Your task to perform on an android device: change notifications settings Image 0: 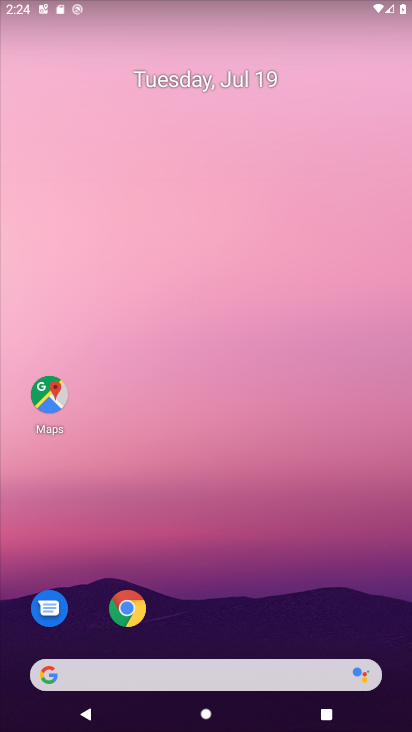
Step 0: drag from (268, 605) to (191, 0)
Your task to perform on an android device: change notifications settings Image 1: 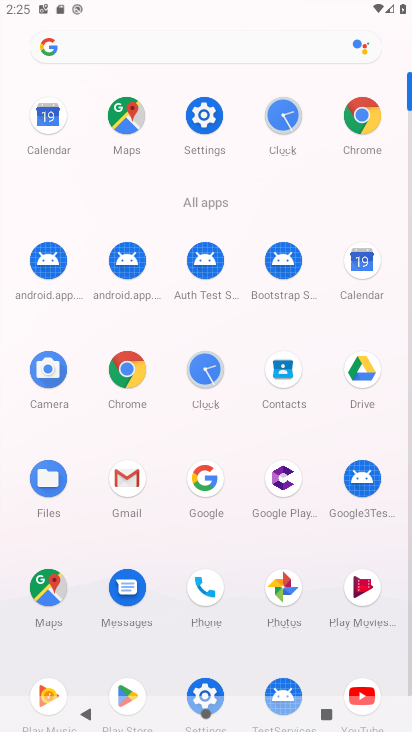
Step 1: click (213, 685)
Your task to perform on an android device: change notifications settings Image 2: 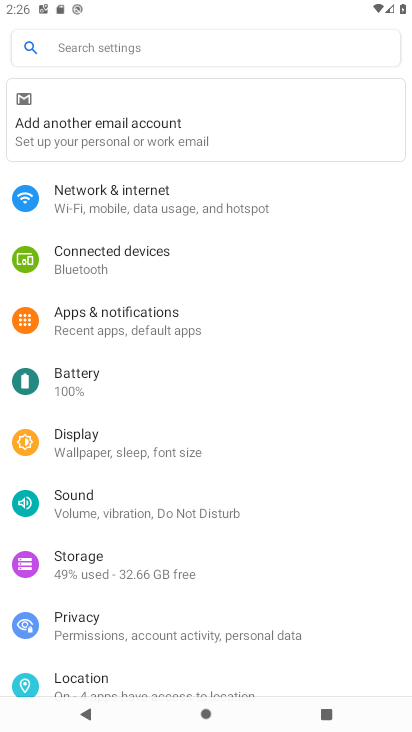
Step 2: click (164, 315)
Your task to perform on an android device: change notifications settings Image 3: 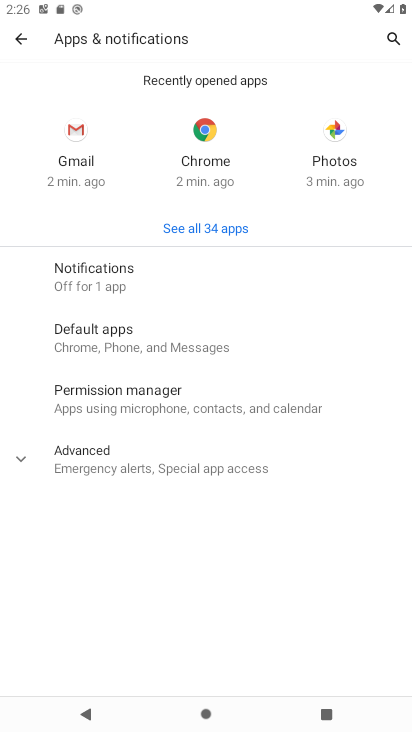
Step 3: click (112, 265)
Your task to perform on an android device: change notifications settings Image 4: 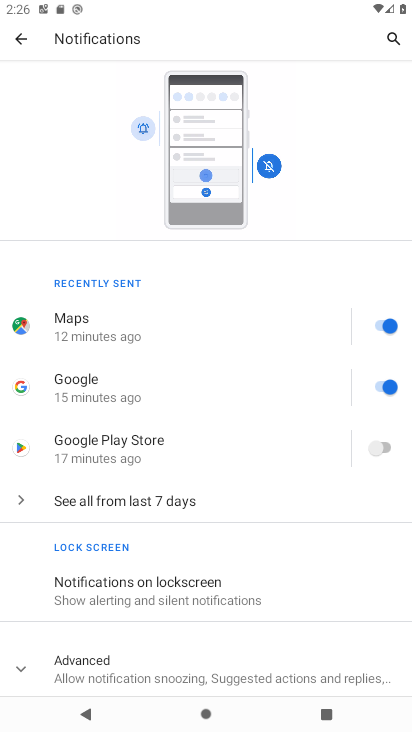
Step 4: drag from (266, 595) to (210, 393)
Your task to perform on an android device: change notifications settings Image 5: 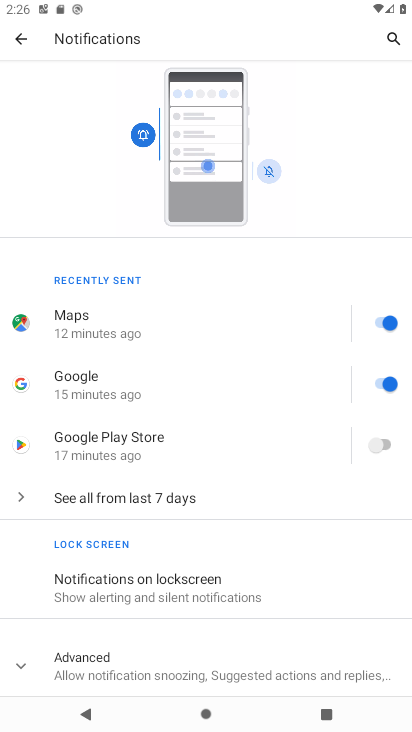
Step 5: click (257, 643)
Your task to perform on an android device: change notifications settings Image 6: 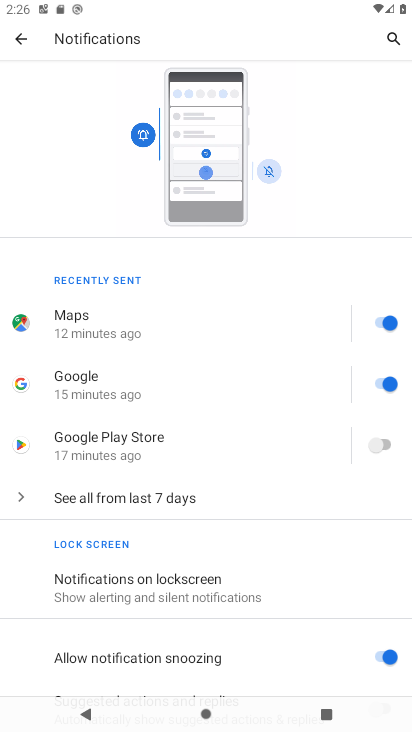
Step 6: click (386, 654)
Your task to perform on an android device: change notifications settings Image 7: 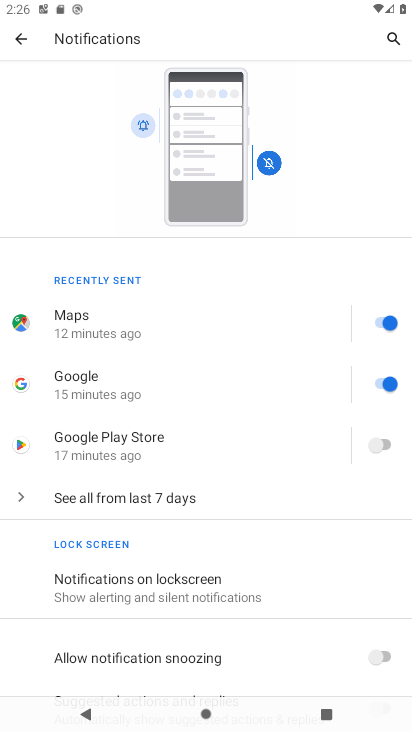
Step 7: task complete